Your task to perform on an android device: check battery use Image 0: 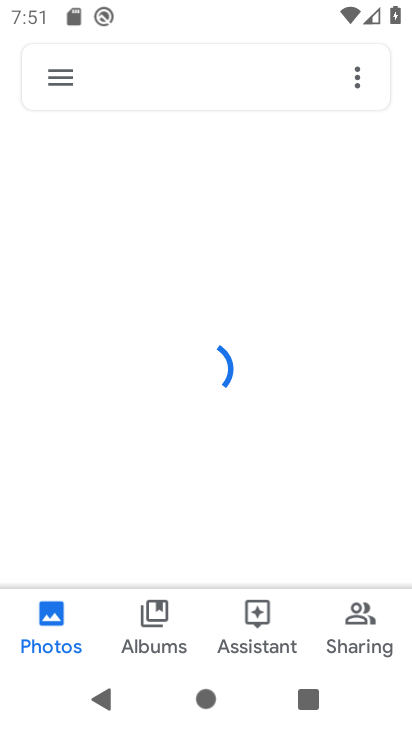
Step 0: press home button
Your task to perform on an android device: check battery use Image 1: 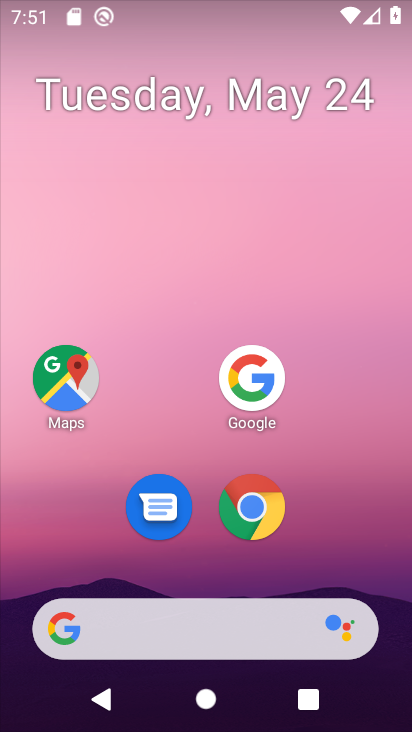
Step 1: drag from (187, 625) to (320, 140)
Your task to perform on an android device: check battery use Image 2: 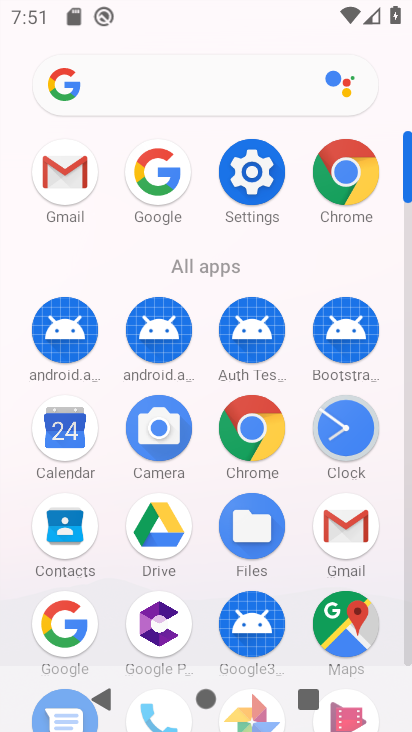
Step 2: click (243, 198)
Your task to perform on an android device: check battery use Image 3: 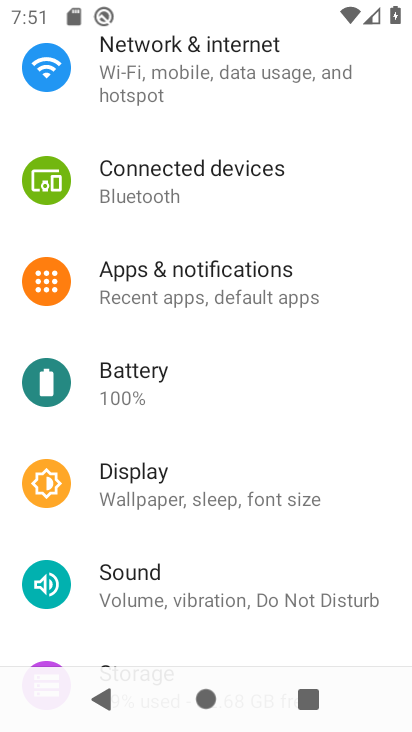
Step 3: click (132, 379)
Your task to perform on an android device: check battery use Image 4: 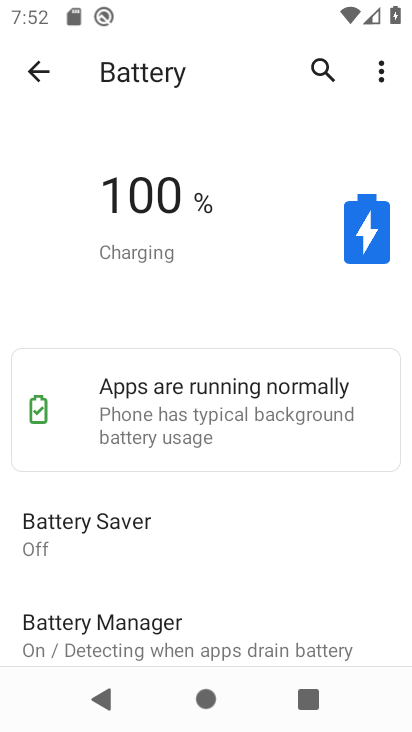
Step 4: click (381, 77)
Your task to perform on an android device: check battery use Image 5: 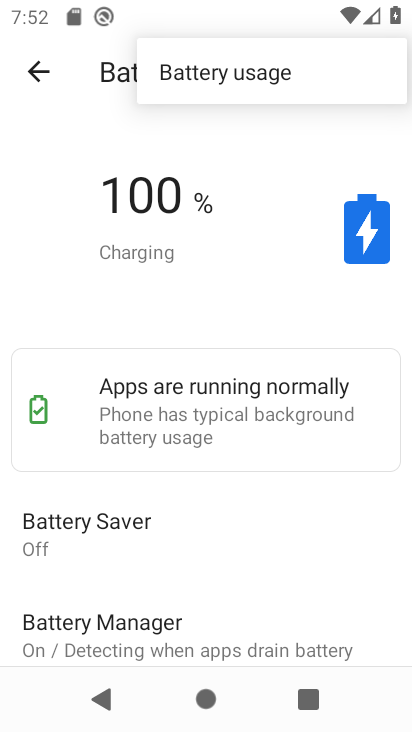
Step 5: click (229, 80)
Your task to perform on an android device: check battery use Image 6: 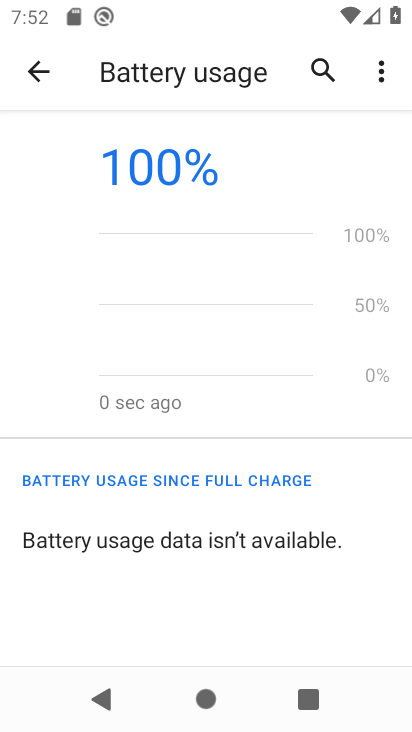
Step 6: task complete